Your task to perform on an android device: Open CNN.com Image 0: 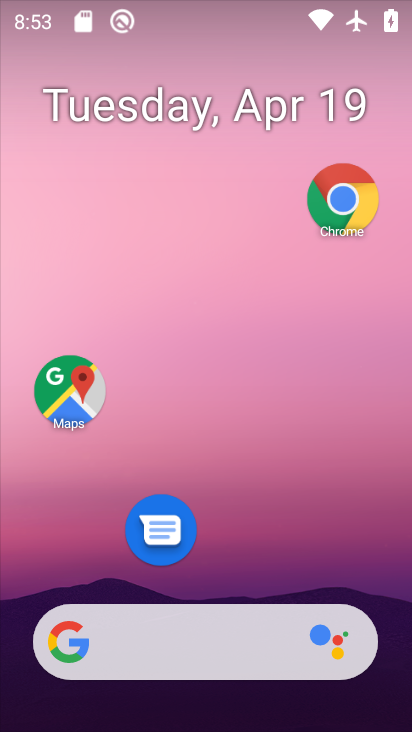
Step 0: click (295, 50)
Your task to perform on an android device: Open CNN.com Image 1: 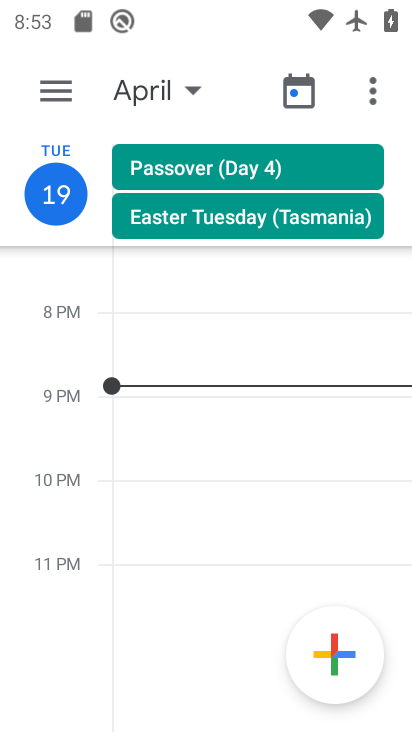
Step 1: drag from (204, 604) to (230, 204)
Your task to perform on an android device: Open CNN.com Image 2: 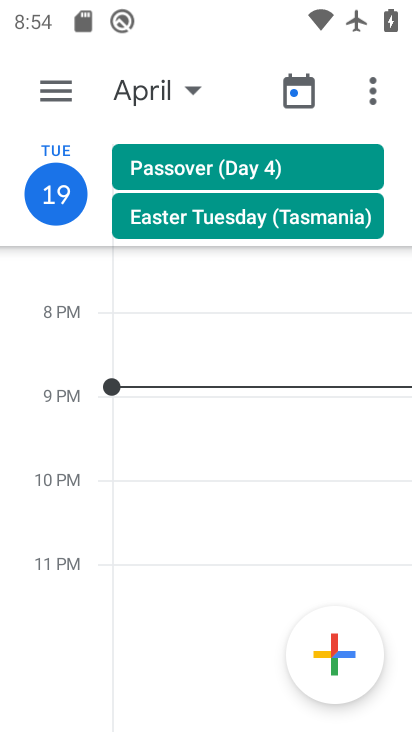
Step 2: press home button
Your task to perform on an android device: Open CNN.com Image 3: 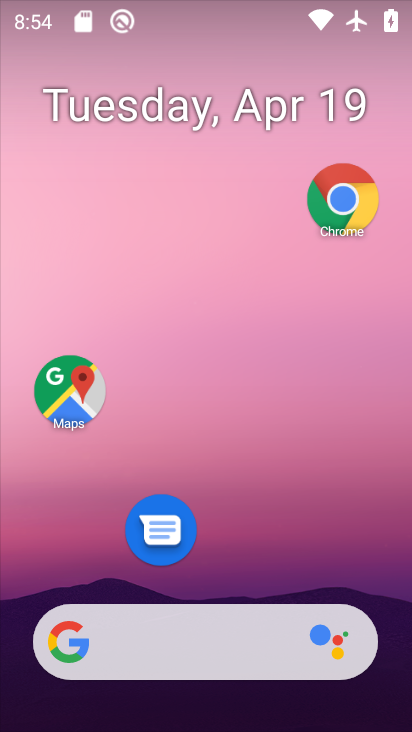
Step 3: click (341, 199)
Your task to perform on an android device: Open CNN.com Image 4: 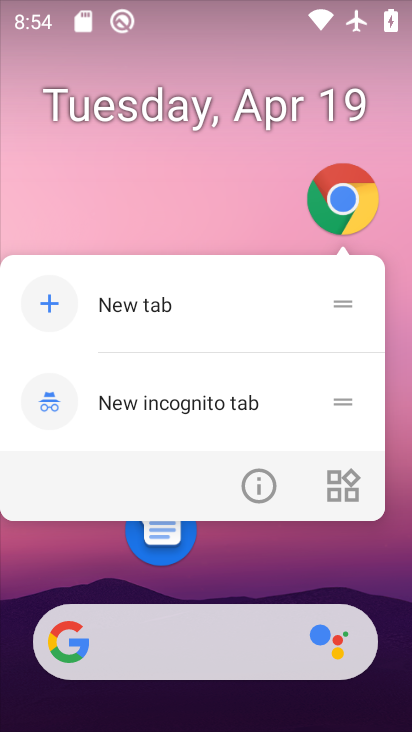
Step 4: click (246, 480)
Your task to perform on an android device: Open CNN.com Image 5: 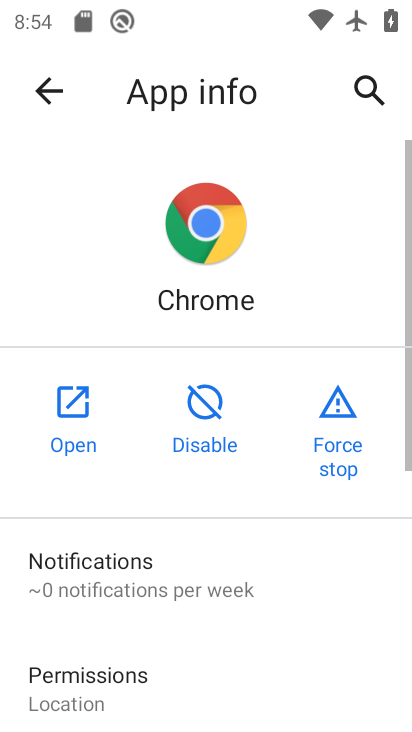
Step 5: click (73, 422)
Your task to perform on an android device: Open CNN.com Image 6: 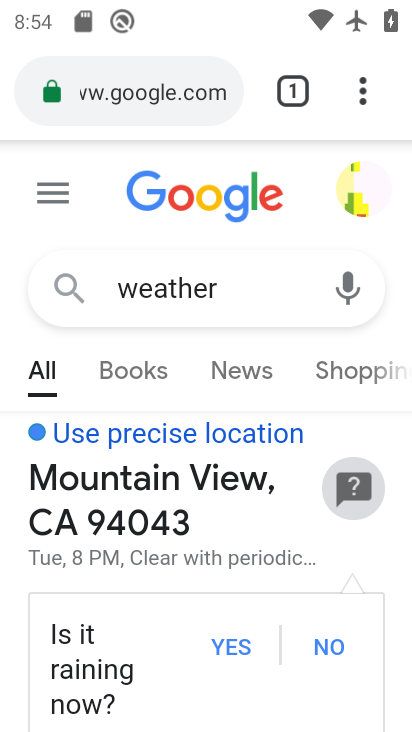
Step 6: click (125, 100)
Your task to perform on an android device: Open CNN.com Image 7: 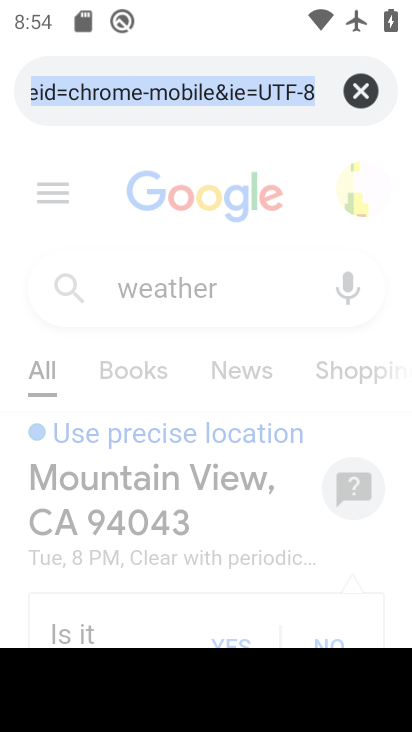
Step 7: click (354, 91)
Your task to perform on an android device: Open CNN.com Image 8: 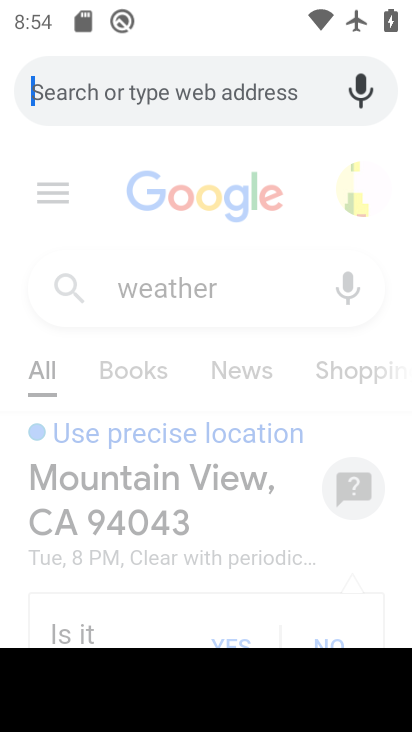
Step 8: type "cnn"
Your task to perform on an android device: Open CNN.com Image 9: 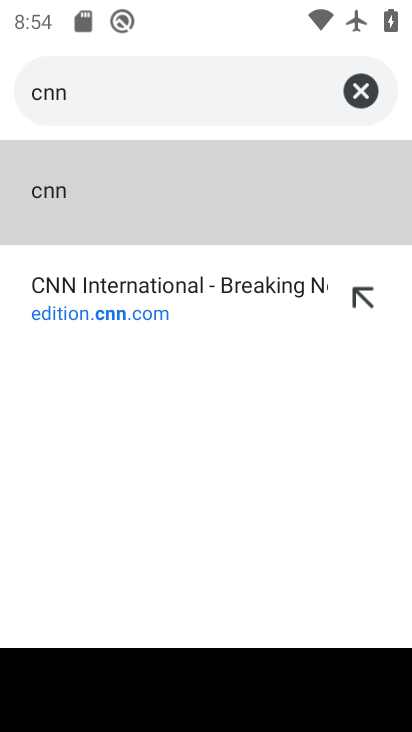
Step 9: click (81, 205)
Your task to perform on an android device: Open CNN.com Image 10: 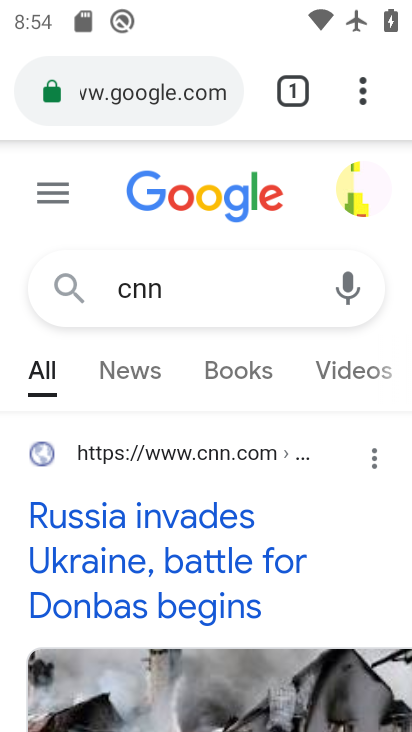
Step 10: task complete